Your task to perform on an android device: turn on bluetooth scan Image 0: 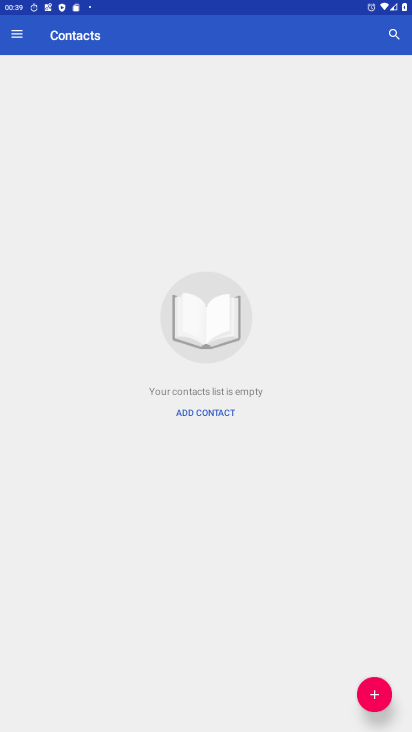
Step 0: drag from (166, 10) to (236, 560)
Your task to perform on an android device: turn on bluetooth scan Image 1: 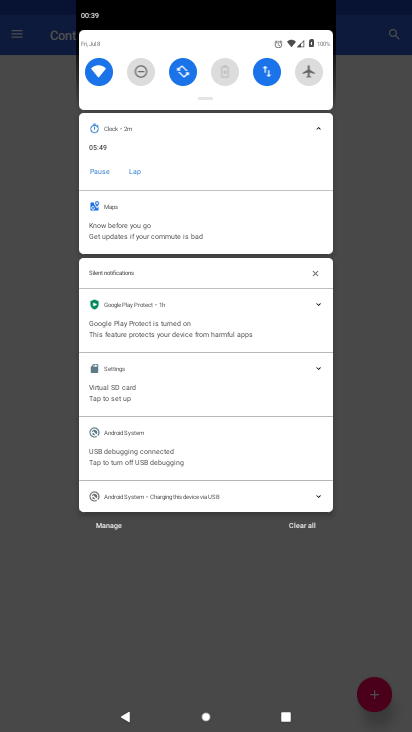
Step 1: drag from (164, 43) to (270, 638)
Your task to perform on an android device: turn on bluetooth scan Image 2: 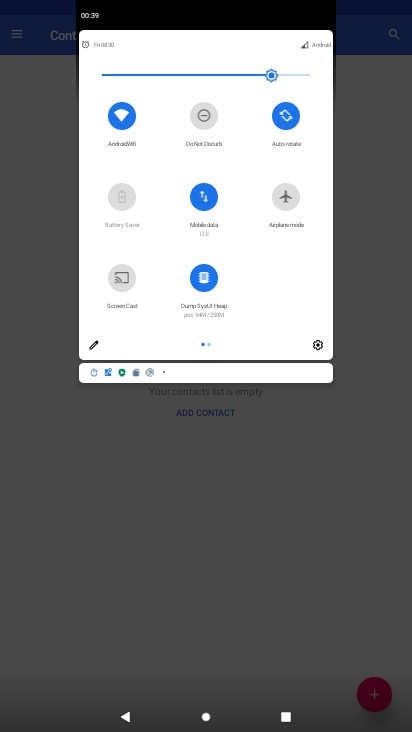
Step 2: click (319, 340)
Your task to perform on an android device: turn on bluetooth scan Image 3: 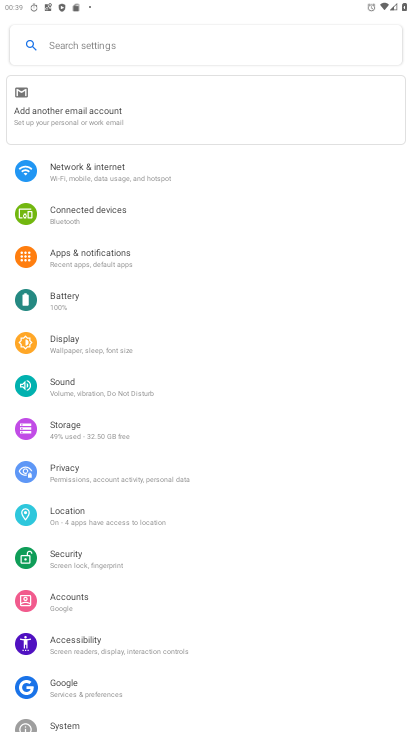
Step 3: click (83, 519)
Your task to perform on an android device: turn on bluetooth scan Image 4: 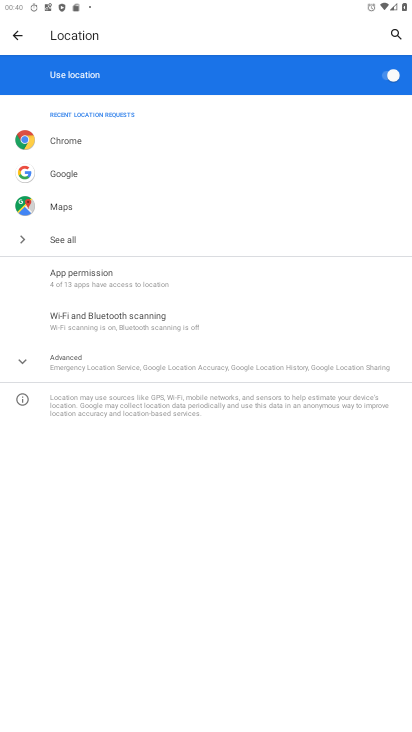
Step 4: click (116, 320)
Your task to perform on an android device: turn on bluetooth scan Image 5: 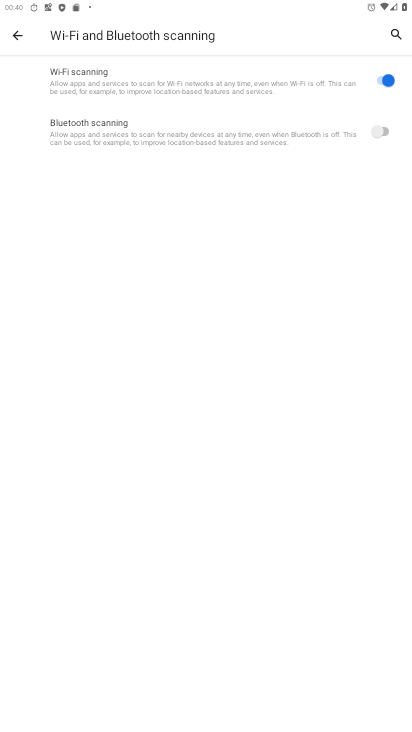
Step 5: click (378, 135)
Your task to perform on an android device: turn on bluetooth scan Image 6: 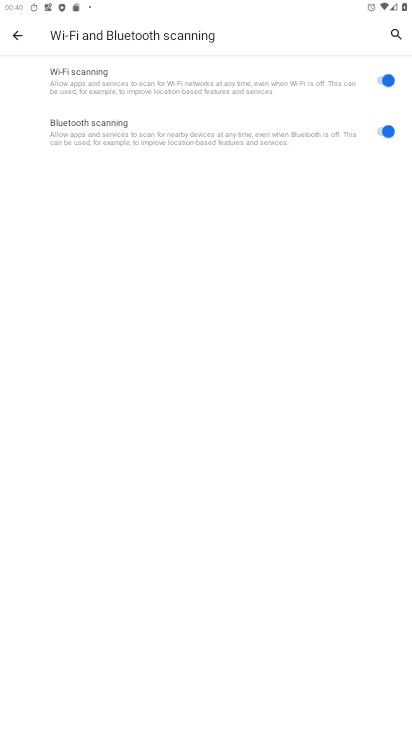
Step 6: task complete